Your task to perform on an android device: see tabs open on other devices in the chrome app Image 0: 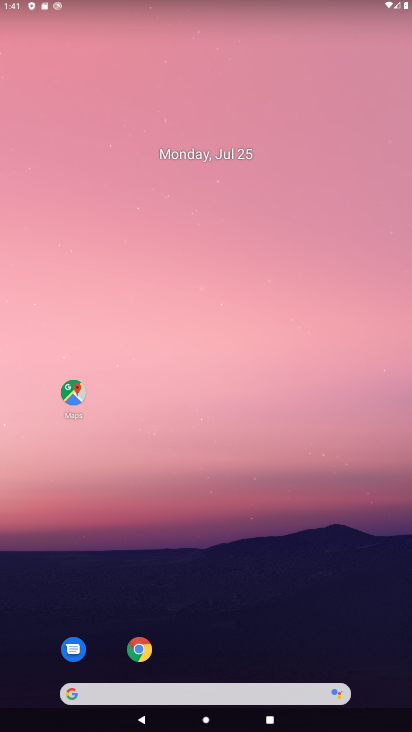
Step 0: click (135, 643)
Your task to perform on an android device: see tabs open on other devices in the chrome app Image 1: 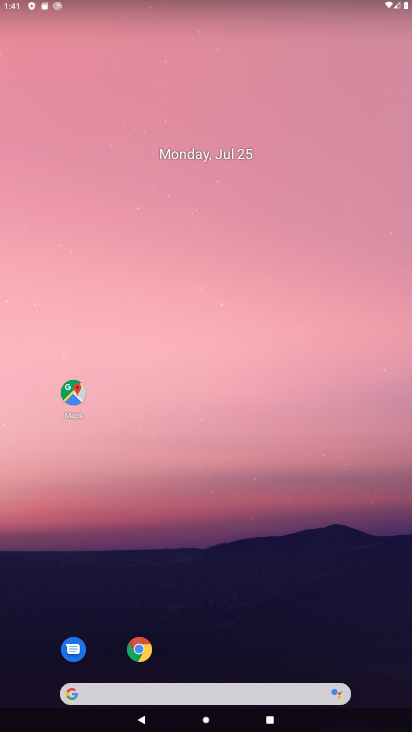
Step 1: click (135, 643)
Your task to perform on an android device: see tabs open on other devices in the chrome app Image 2: 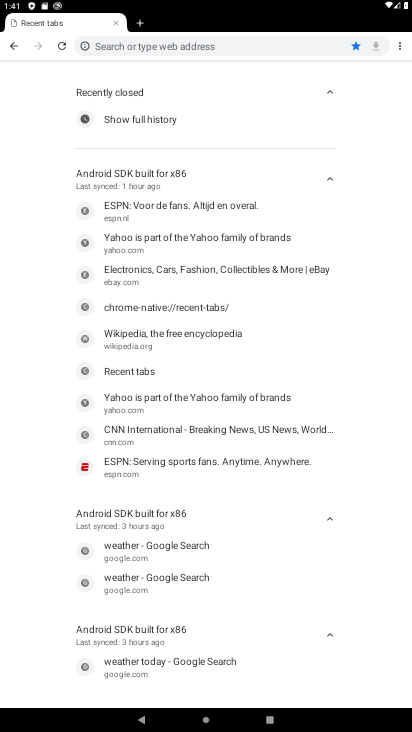
Step 2: click (400, 49)
Your task to perform on an android device: see tabs open on other devices in the chrome app Image 3: 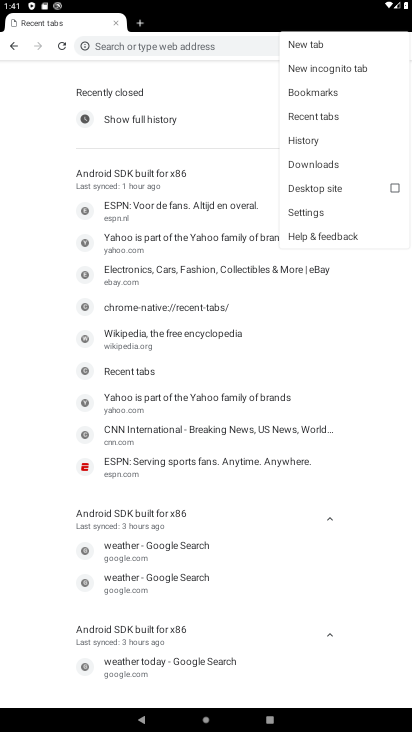
Step 3: click (342, 114)
Your task to perform on an android device: see tabs open on other devices in the chrome app Image 4: 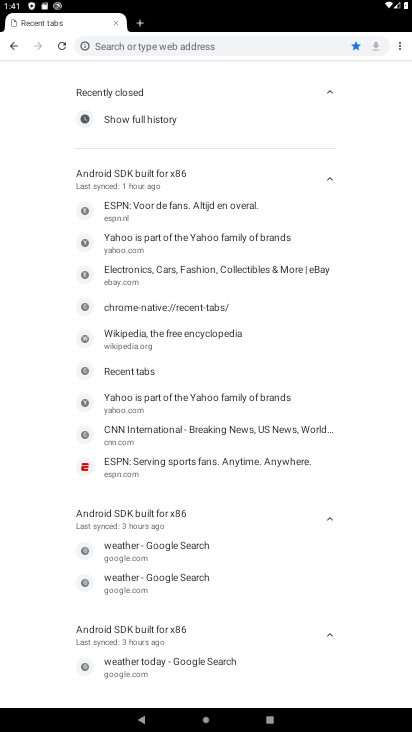
Step 4: task complete